Your task to perform on an android device: change the upload size in google photos Image 0: 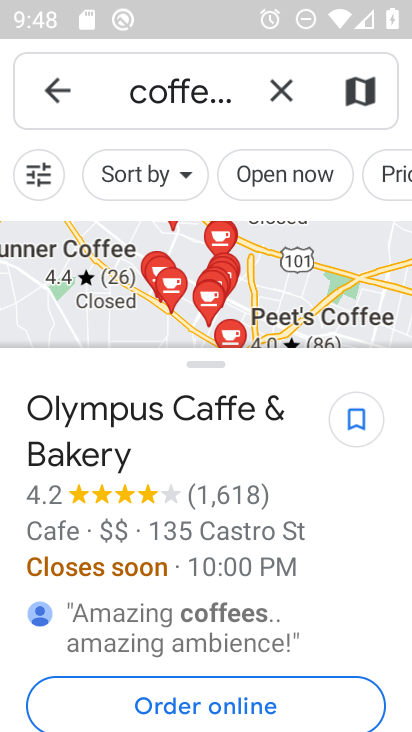
Step 0: press home button
Your task to perform on an android device: change the upload size in google photos Image 1: 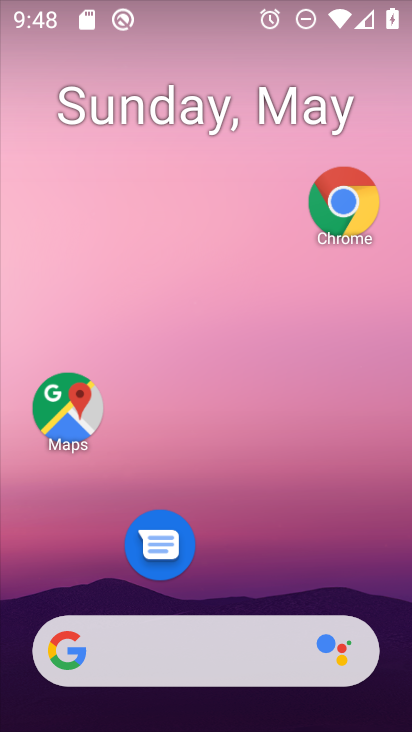
Step 1: drag from (249, 544) to (219, 19)
Your task to perform on an android device: change the upload size in google photos Image 2: 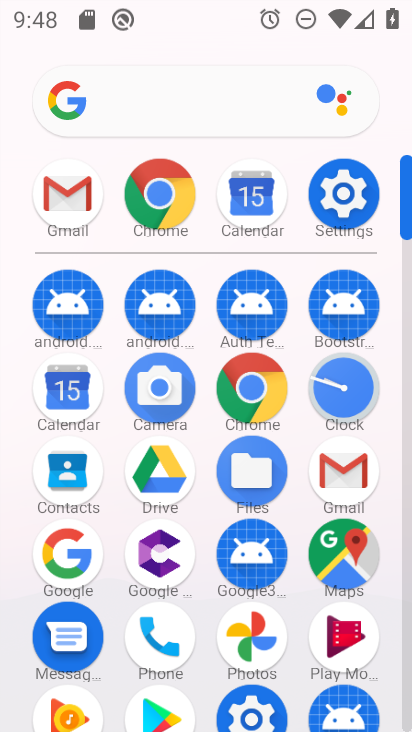
Step 2: click (250, 626)
Your task to perform on an android device: change the upload size in google photos Image 3: 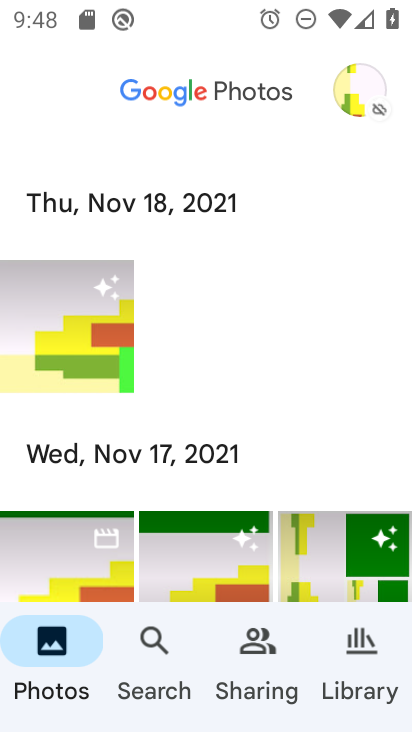
Step 3: click (369, 83)
Your task to perform on an android device: change the upload size in google photos Image 4: 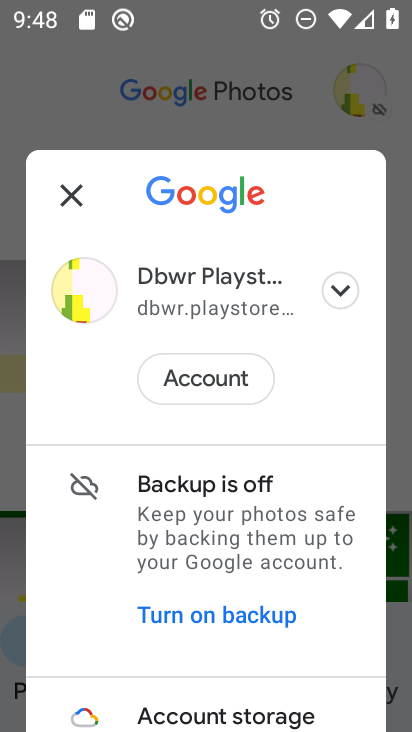
Step 4: drag from (223, 464) to (218, 255)
Your task to perform on an android device: change the upload size in google photos Image 5: 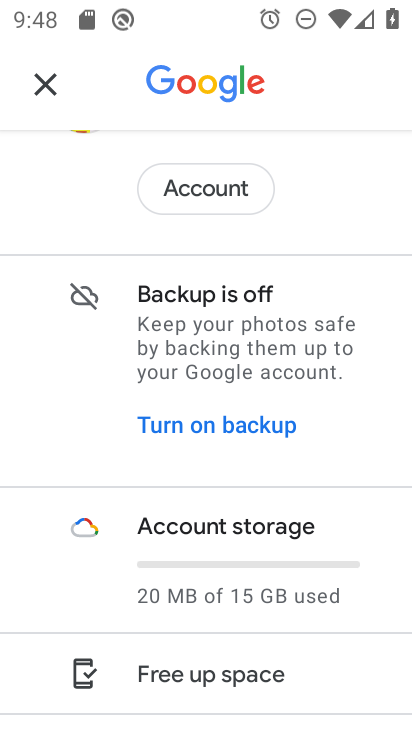
Step 5: drag from (189, 549) to (208, 227)
Your task to perform on an android device: change the upload size in google photos Image 6: 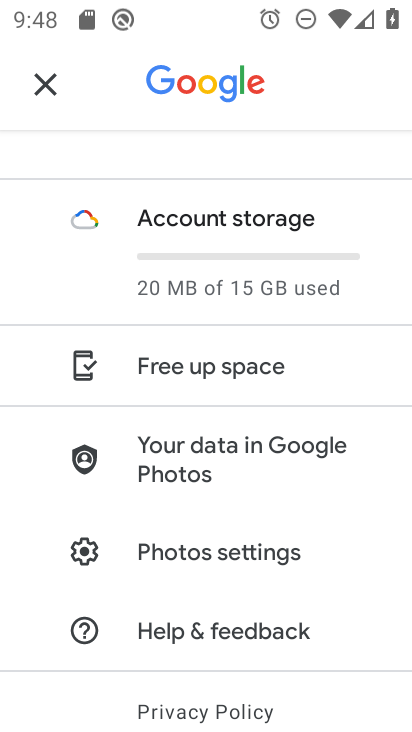
Step 6: click (210, 558)
Your task to perform on an android device: change the upload size in google photos Image 7: 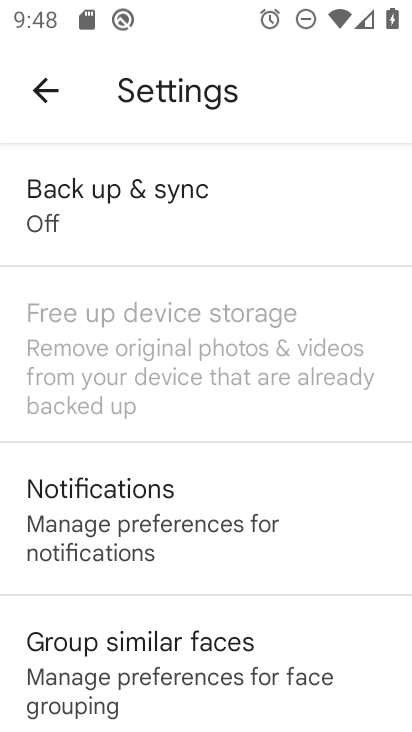
Step 7: drag from (221, 603) to (258, 574)
Your task to perform on an android device: change the upload size in google photos Image 8: 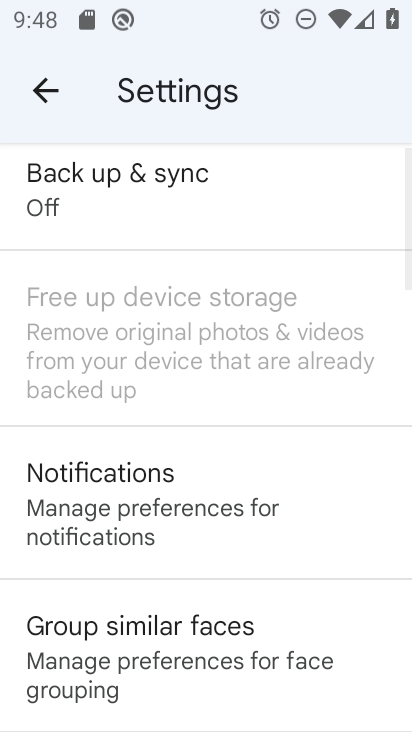
Step 8: click (222, 214)
Your task to perform on an android device: change the upload size in google photos Image 9: 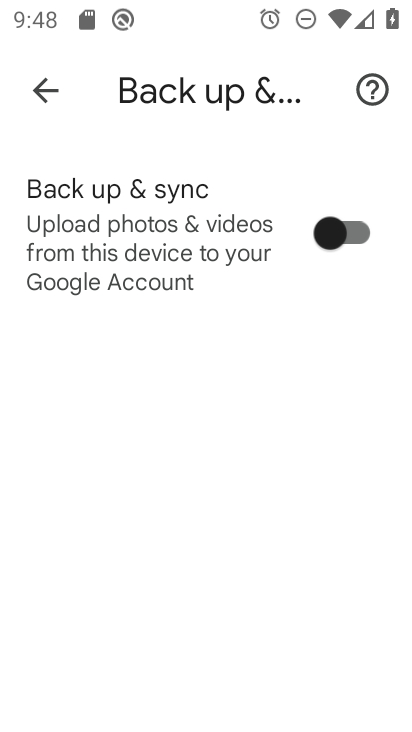
Step 9: click (360, 247)
Your task to perform on an android device: change the upload size in google photos Image 10: 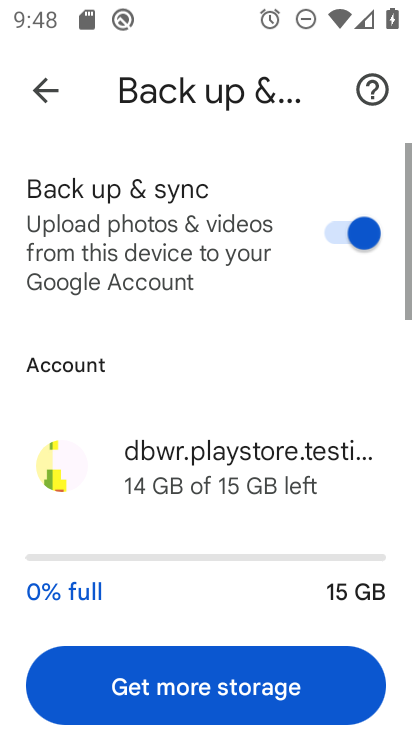
Step 10: drag from (172, 482) to (189, 168)
Your task to perform on an android device: change the upload size in google photos Image 11: 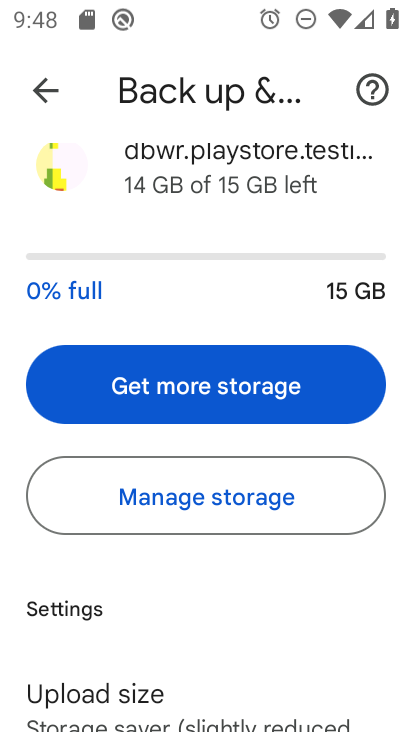
Step 11: drag from (156, 546) to (180, 222)
Your task to perform on an android device: change the upload size in google photos Image 12: 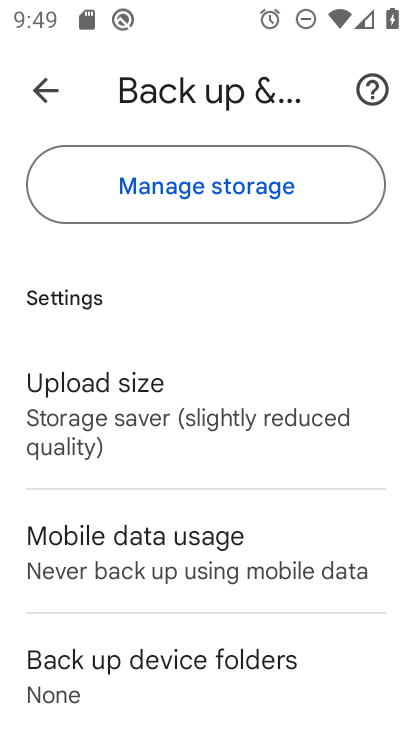
Step 12: click (121, 427)
Your task to perform on an android device: change the upload size in google photos Image 13: 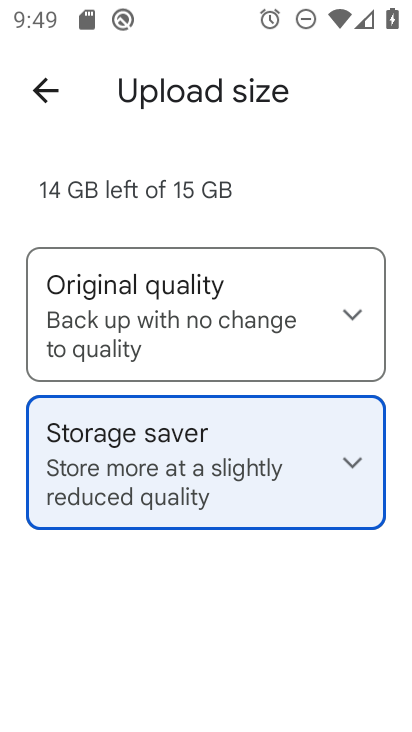
Step 13: click (158, 287)
Your task to perform on an android device: change the upload size in google photos Image 14: 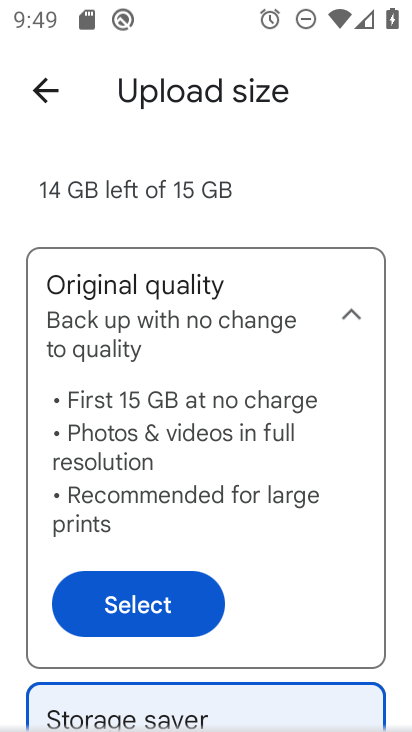
Step 14: click (168, 608)
Your task to perform on an android device: change the upload size in google photos Image 15: 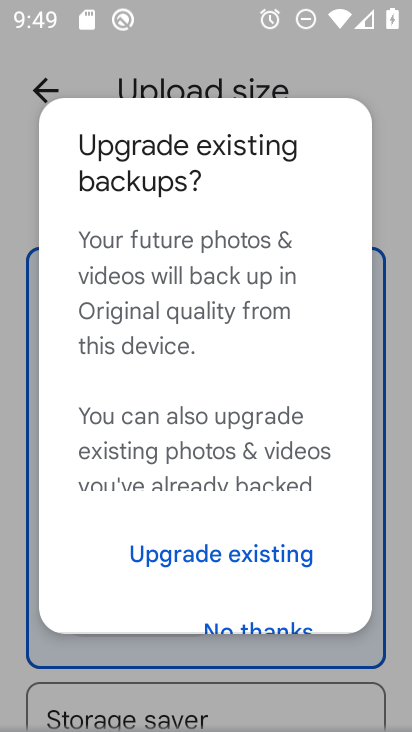
Step 15: click (223, 628)
Your task to perform on an android device: change the upload size in google photos Image 16: 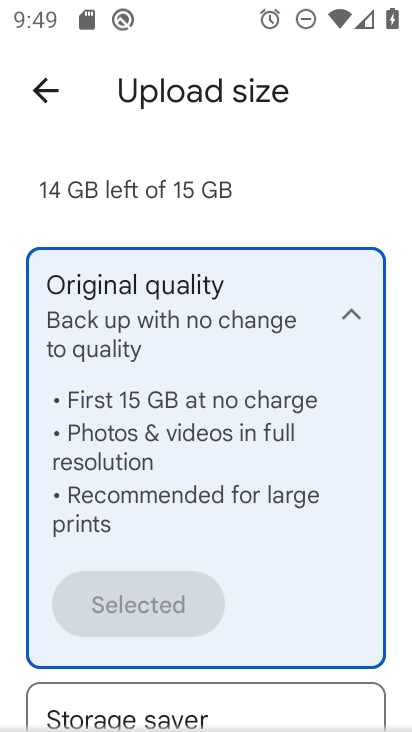
Step 16: task complete